Your task to perform on an android device: Show me popular games on the Play Store Image 0: 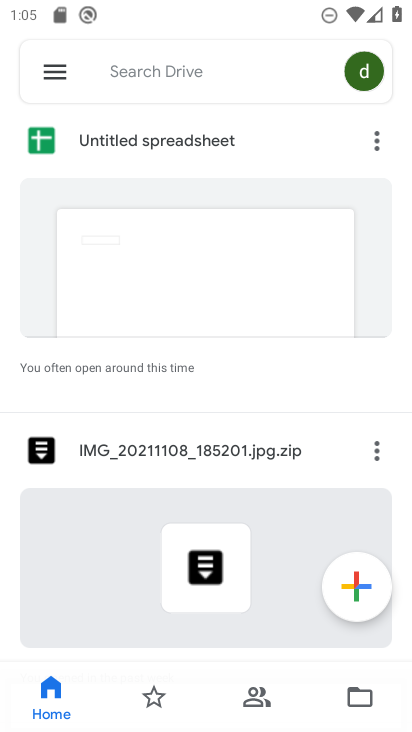
Step 0: press home button
Your task to perform on an android device: Show me popular games on the Play Store Image 1: 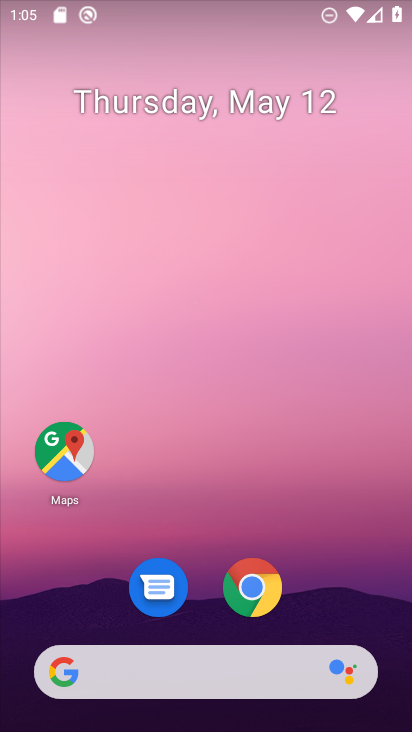
Step 1: drag from (334, 578) to (283, 20)
Your task to perform on an android device: Show me popular games on the Play Store Image 2: 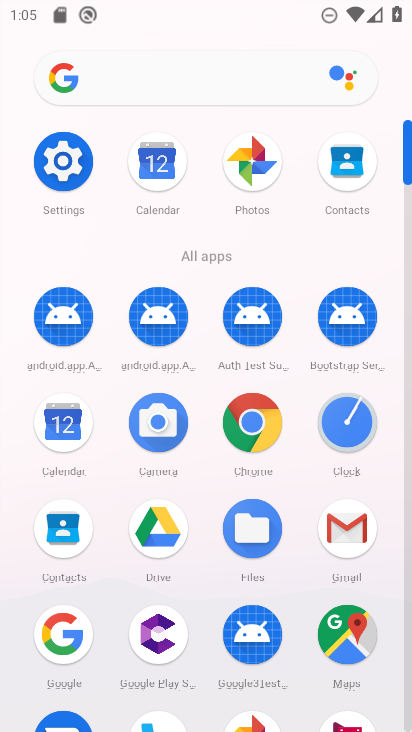
Step 2: drag from (211, 623) to (226, 381)
Your task to perform on an android device: Show me popular games on the Play Store Image 3: 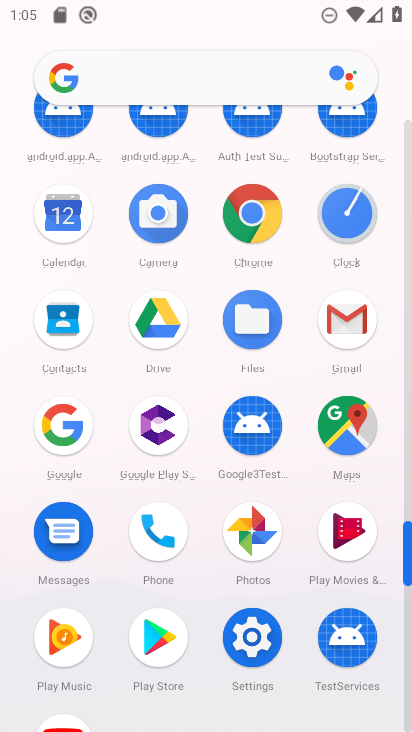
Step 3: click (161, 635)
Your task to perform on an android device: Show me popular games on the Play Store Image 4: 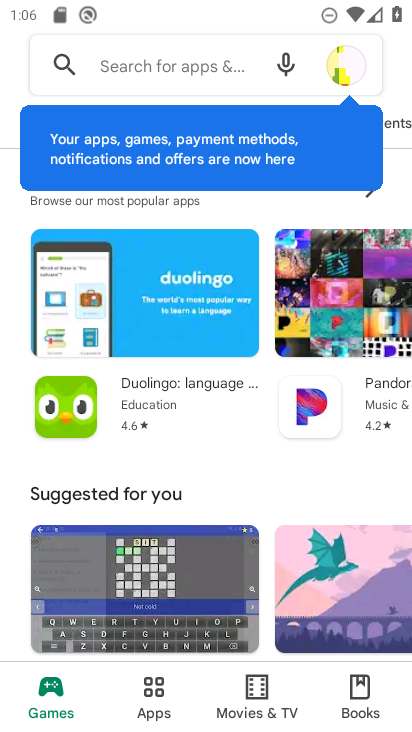
Step 4: click (205, 70)
Your task to perform on an android device: Show me popular games on the Play Store Image 5: 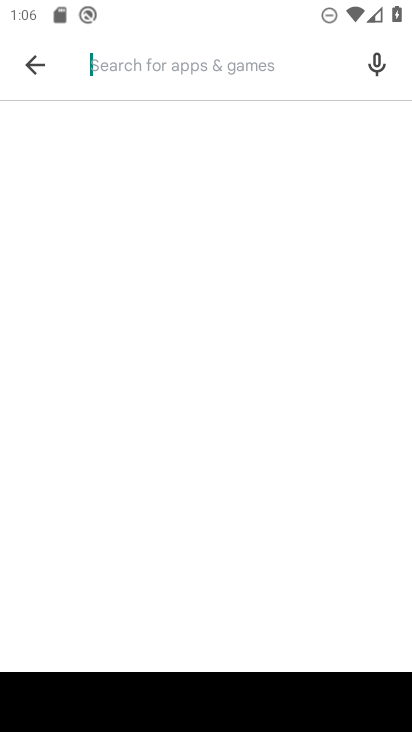
Step 5: type "popular games"
Your task to perform on an android device: Show me popular games on the Play Store Image 6: 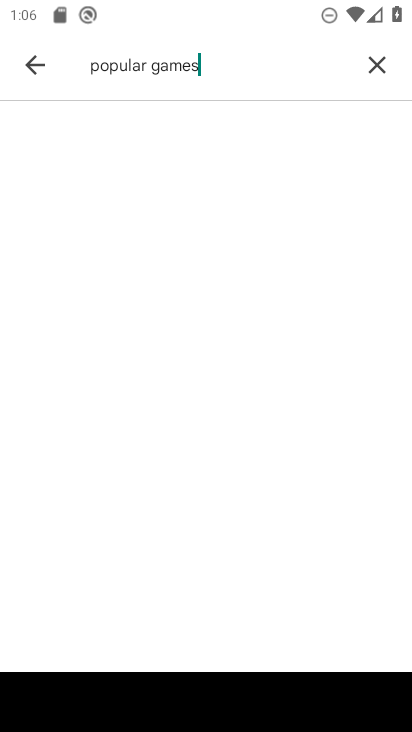
Step 6: type ""
Your task to perform on an android device: Show me popular games on the Play Store Image 7: 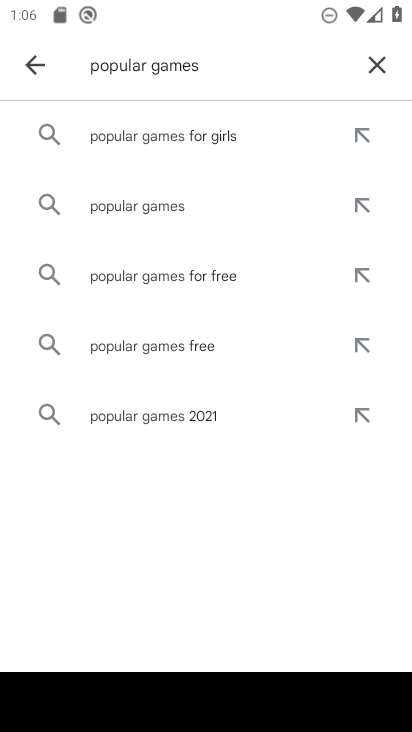
Step 7: click (124, 199)
Your task to perform on an android device: Show me popular games on the Play Store Image 8: 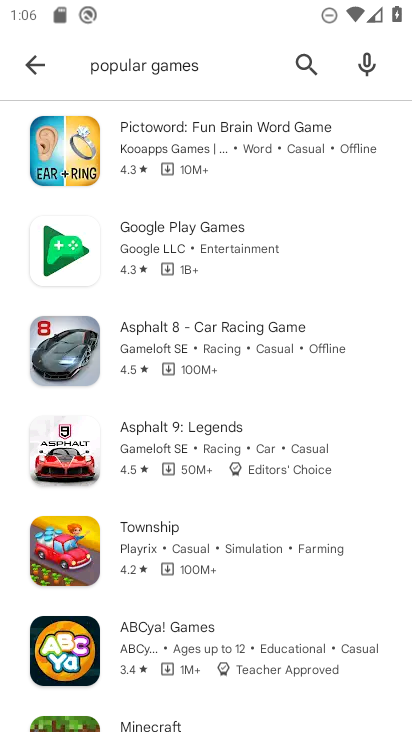
Step 8: task complete